Your task to perform on an android device: Show me popular videos on Youtube Image 0: 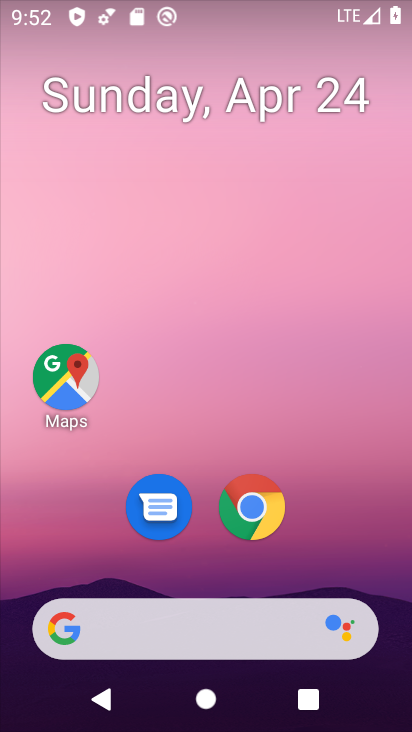
Step 0: drag from (217, 475) to (256, 158)
Your task to perform on an android device: Show me popular videos on Youtube Image 1: 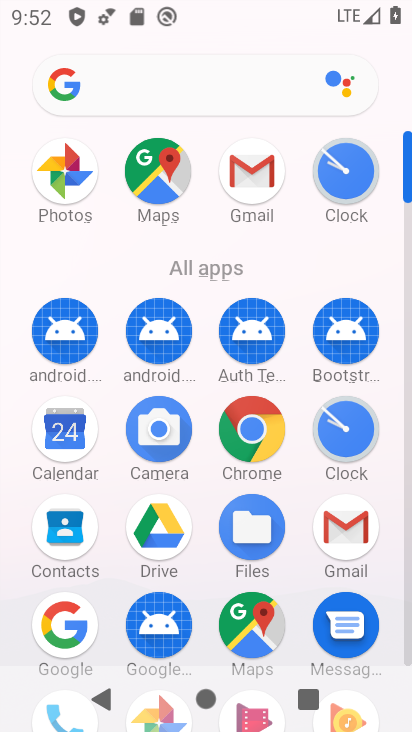
Step 1: drag from (202, 634) to (174, 311)
Your task to perform on an android device: Show me popular videos on Youtube Image 2: 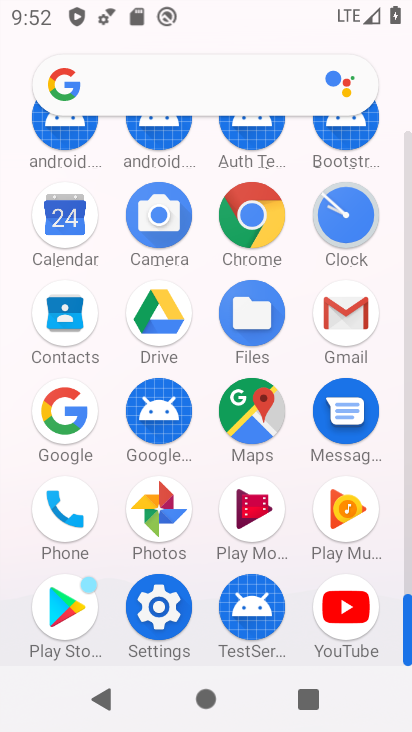
Step 2: click (345, 599)
Your task to perform on an android device: Show me popular videos on Youtube Image 3: 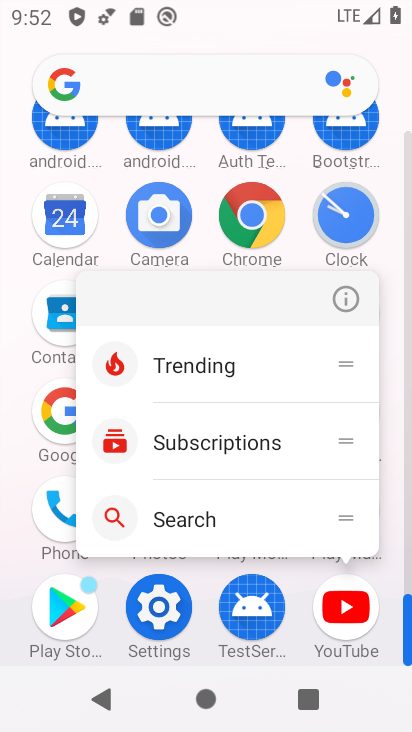
Step 3: click (353, 295)
Your task to perform on an android device: Show me popular videos on Youtube Image 4: 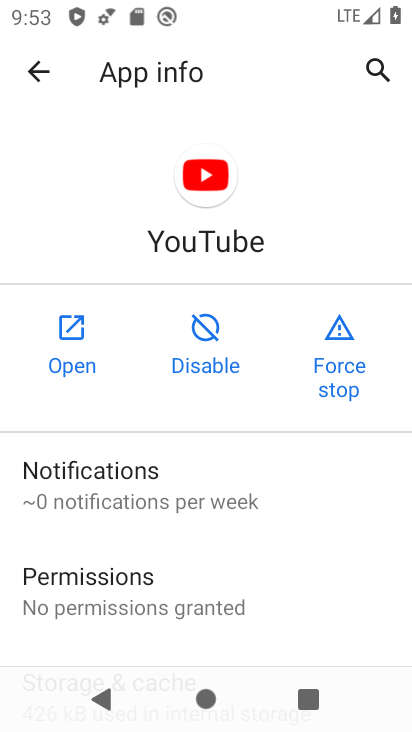
Step 4: click (71, 356)
Your task to perform on an android device: Show me popular videos on Youtube Image 5: 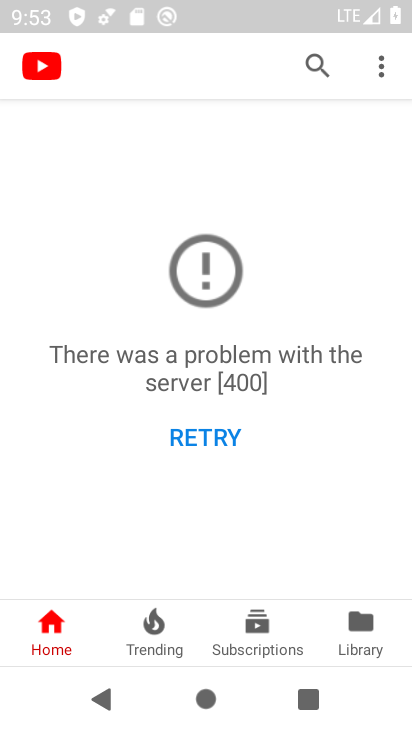
Step 5: click (240, 631)
Your task to perform on an android device: Show me popular videos on Youtube Image 6: 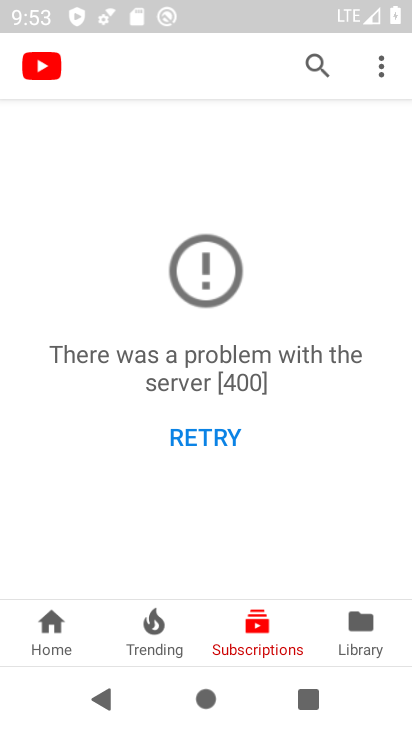
Step 6: click (167, 640)
Your task to perform on an android device: Show me popular videos on Youtube Image 7: 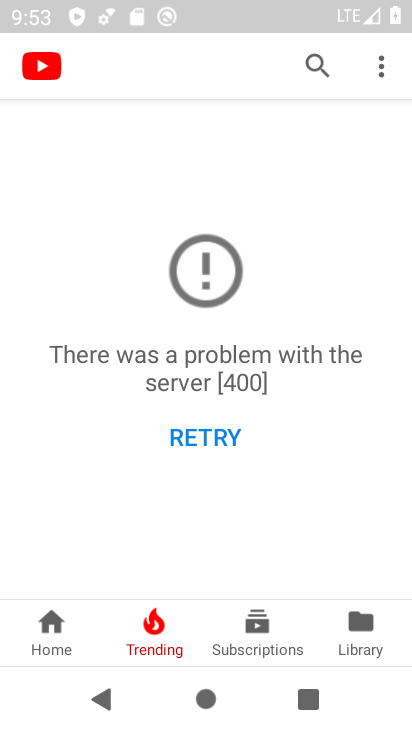
Step 7: task complete